Your task to perform on an android device: Open settings Image 0: 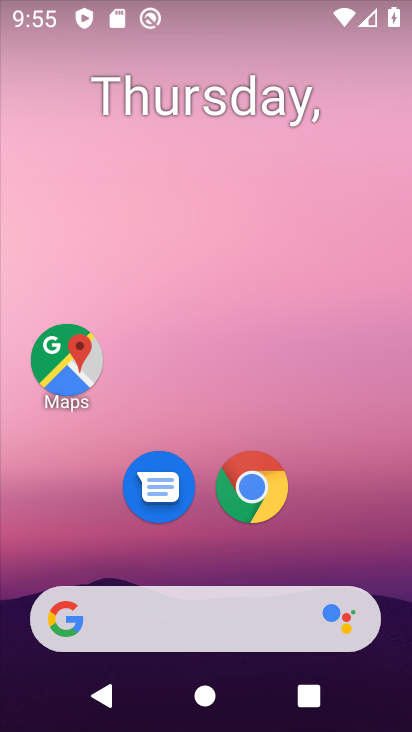
Step 0: drag from (357, 542) to (166, 176)
Your task to perform on an android device: Open settings Image 1: 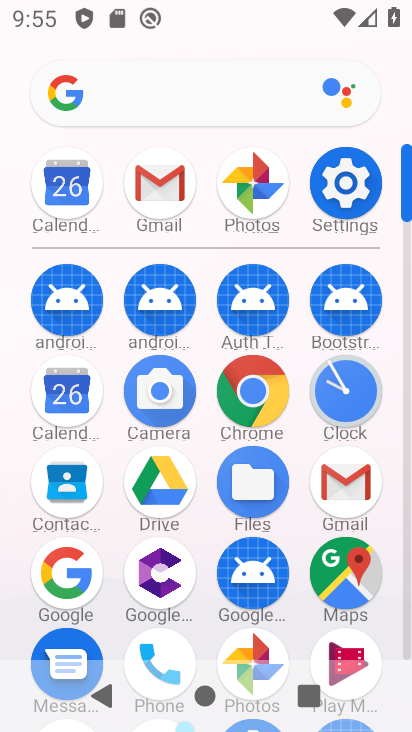
Step 1: click (360, 175)
Your task to perform on an android device: Open settings Image 2: 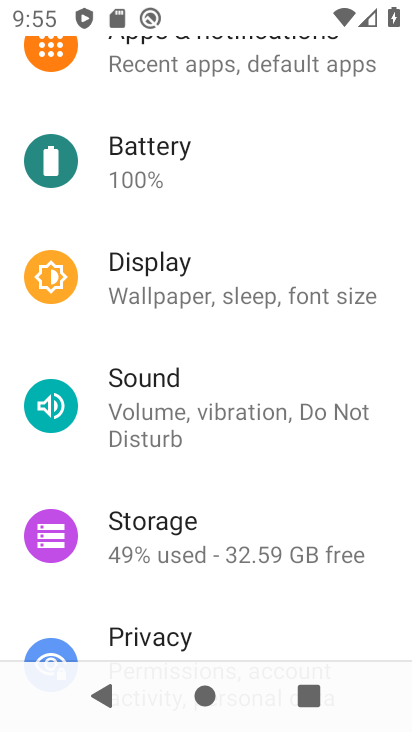
Step 2: task complete